Your task to perform on an android device: Go to internet settings Image 0: 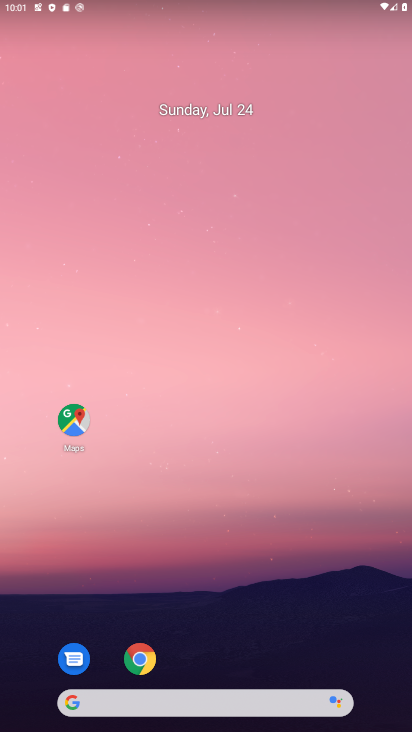
Step 0: drag from (404, 717) to (341, 36)
Your task to perform on an android device: Go to internet settings Image 1: 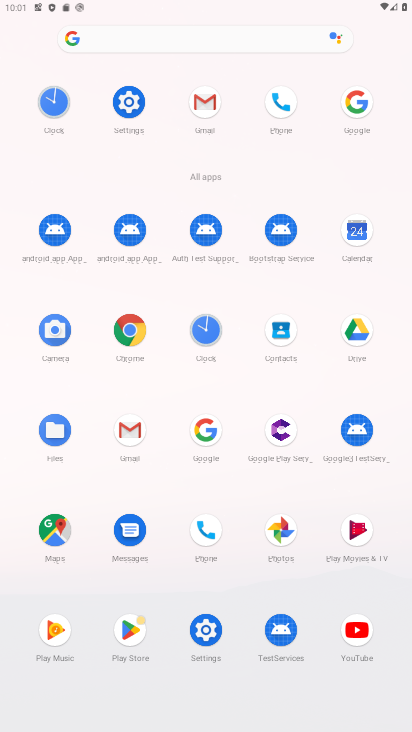
Step 1: click (209, 625)
Your task to perform on an android device: Go to internet settings Image 2: 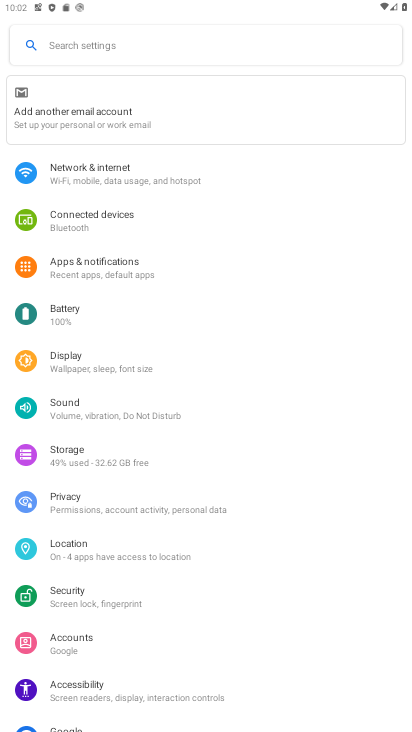
Step 2: click (84, 166)
Your task to perform on an android device: Go to internet settings Image 3: 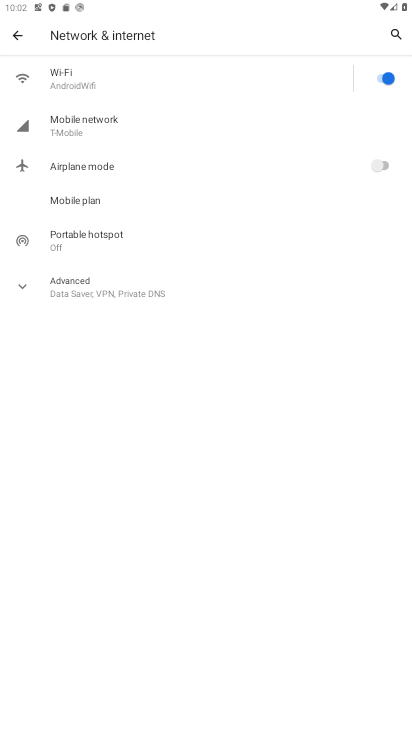
Step 3: click (22, 286)
Your task to perform on an android device: Go to internet settings Image 4: 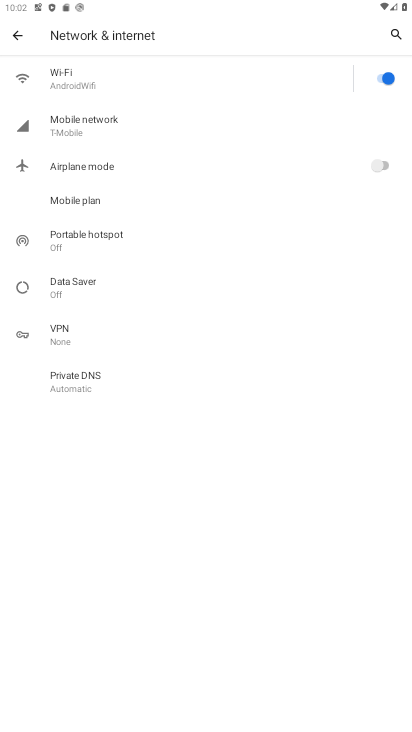
Step 4: task complete